Your task to perform on an android device: Empty the shopping cart on newegg.com. Search for "razer huntsman" on newegg.com, select the first entry, and add it to the cart. Image 0: 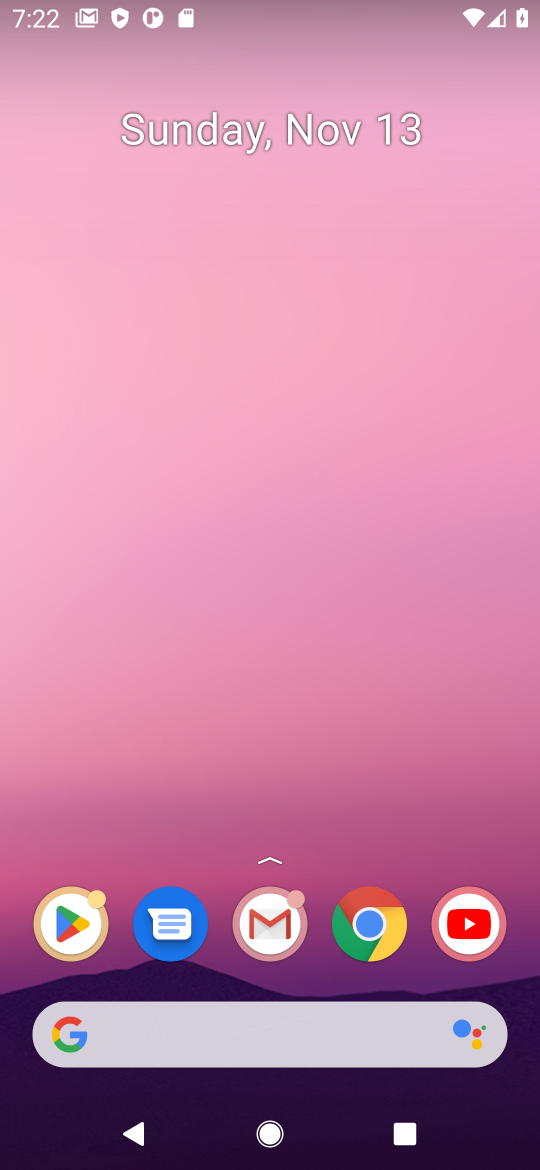
Step 0: click (363, 915)
Your task to perform on an android device: Empty the shopping cart on newegg.com. Search for "razer huntsman" on newegg.com, select the first entry, and add it to the cart. Image 1: 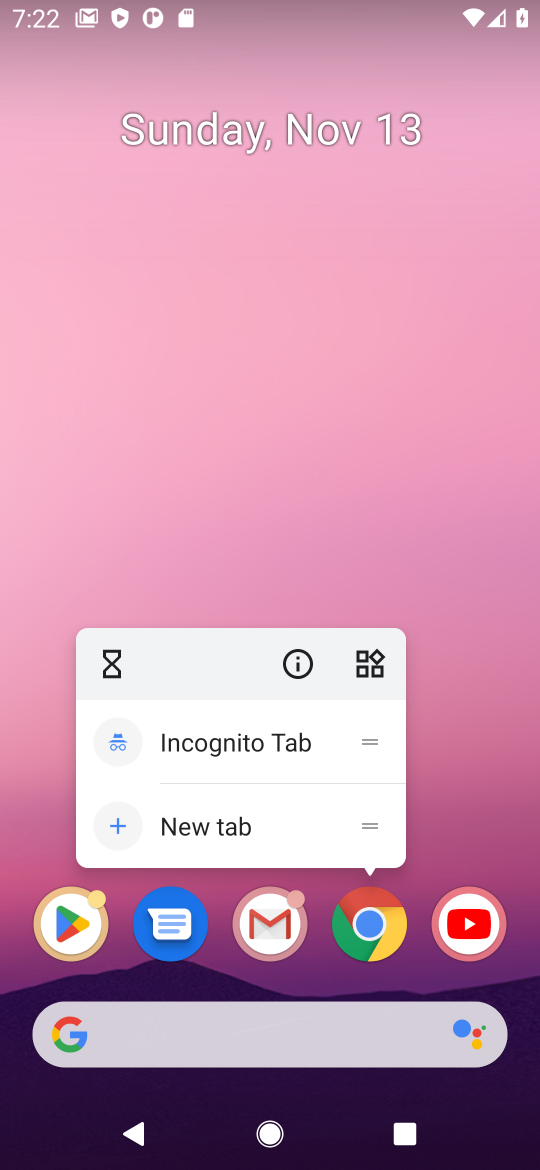
Step 1: click (363, 915)
Your task to perform on an android device: Empty the shopping cart on newegg.com. Search for "razer huntsman" on newegg.com, select the first entry, and add it to the cart. Image 2: 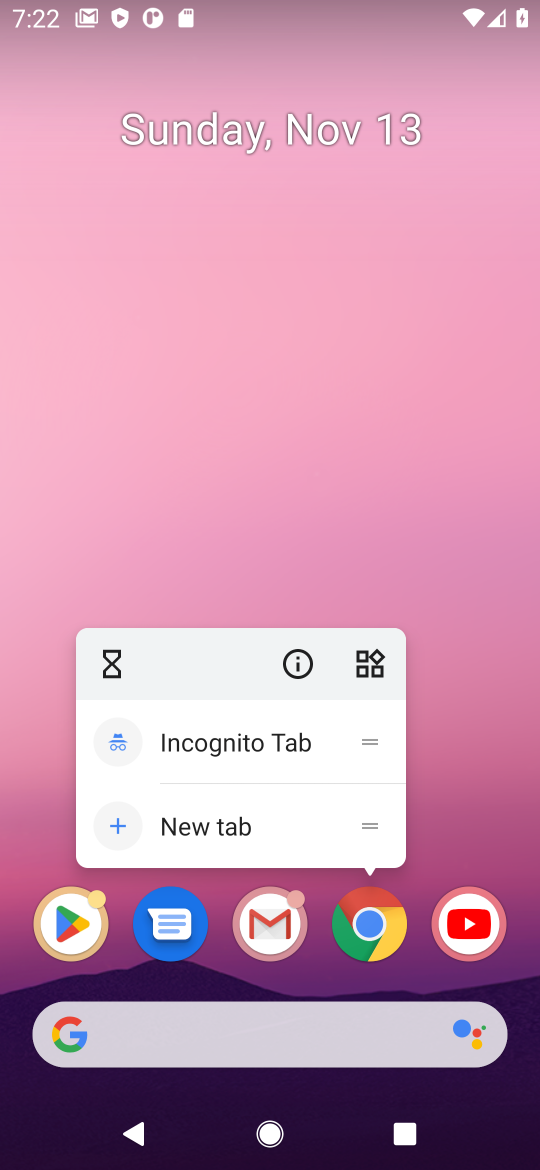
Step 2: click (376, 924)
Your task to perform on an android device: Empty the shopping cart on newegg.com. Search for "razer huntsman" on newegg.com, select the first entry, and add it to the cart. Image 3: 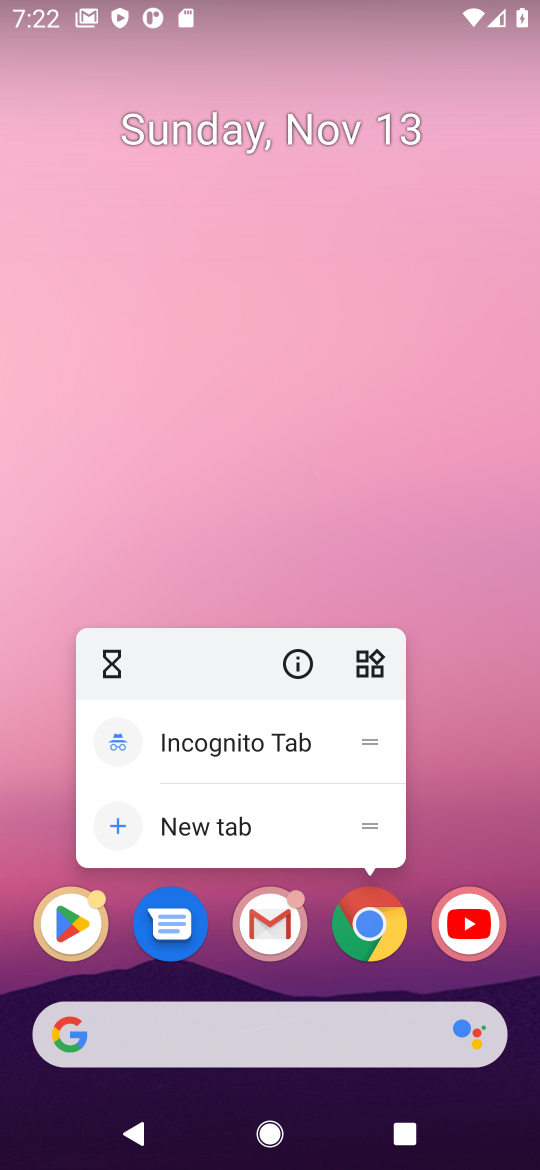
Step 3: click (376, 930)
Your task to perform on an android device: Empty the shopping cart on newegg.com. Search for "razer huntsman" on newegg.com, select the first entry, and add it to the cart. Image 4: 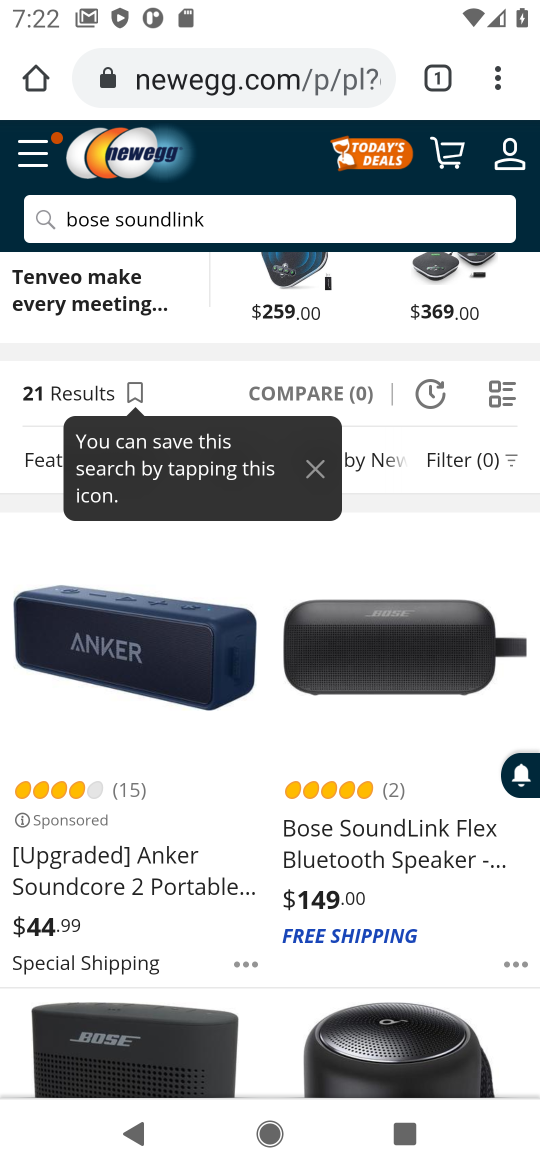
Step 4: click (258, 210)
Your task to perform on an android device: Empty the shopping cart on newegg.com. Search for "razer huntsman" on newegg.com, select the first entry, and add it to the cart. Image 5: 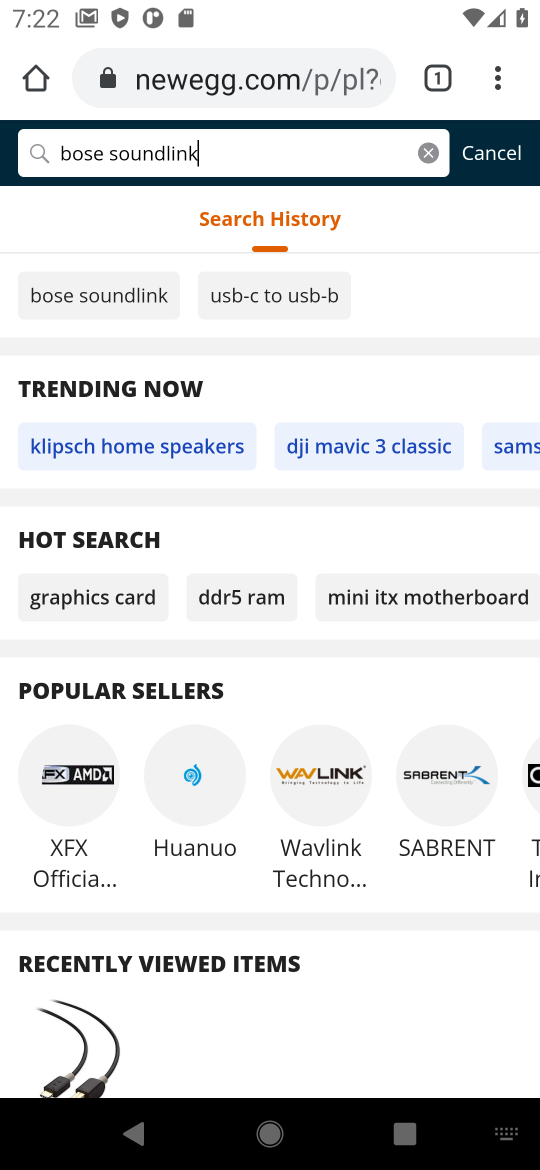
Step 5: click (424, 149)
Your task to perform on an android device: Empty the shopping cart on newegg.com. Search for "razer huntsman" on newegg.com, select the first entry, and add it to the cart. Image 6: 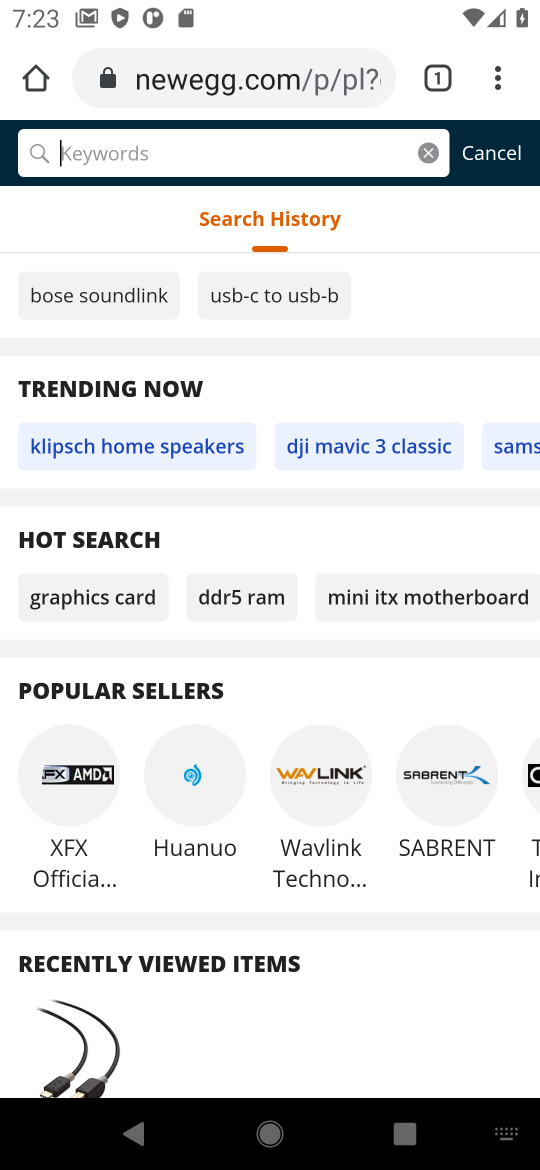
Step 6: type "razer huntsman"
Your task to perform on an android device: Empty the shopping cart on newegg.com. Search for "razer huntsman" on newegg.com, select the first entry, and add it to the cart. Image 7: 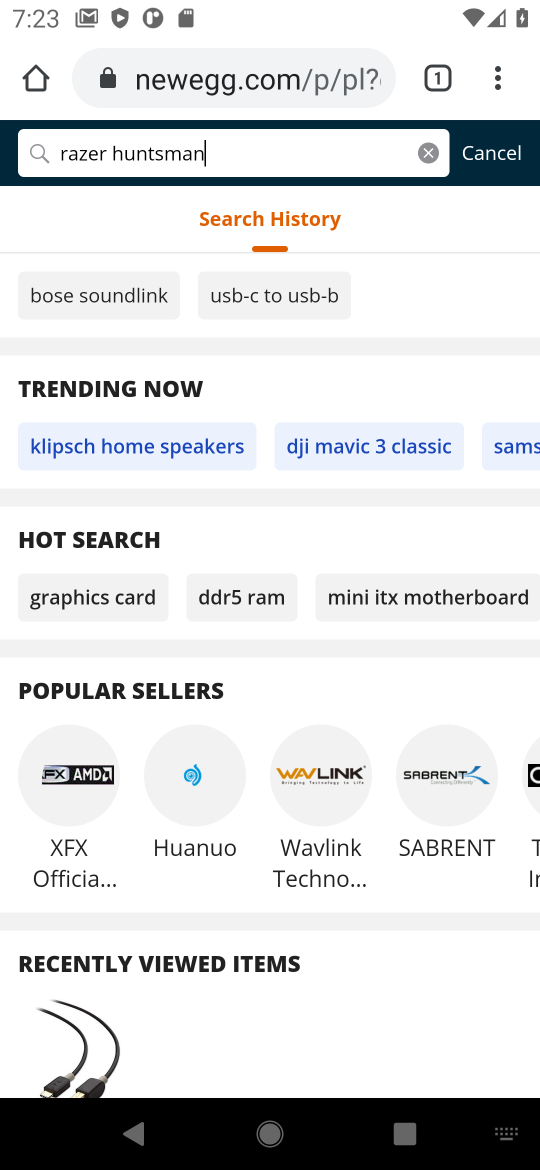
Step 7: press enter
Your task to perform on an android device: Empty the shopping cart on newegg.com. Search for "razer huntsman" on newegg.com, select the first entry, and add it to the cart. Image 8: 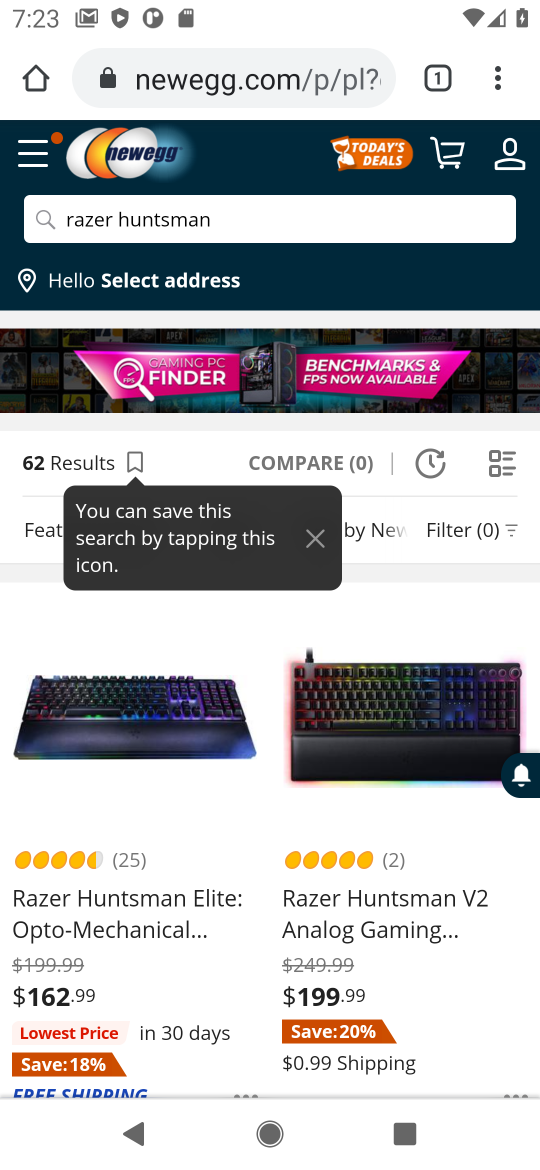
Step 8: click (57, 875)
Your task to perform on an android device: Empty the shopping cart on newegg.com. Search for "razer huntsman" on newegg.com, select the first entry, and add it to the cart. Image 9: 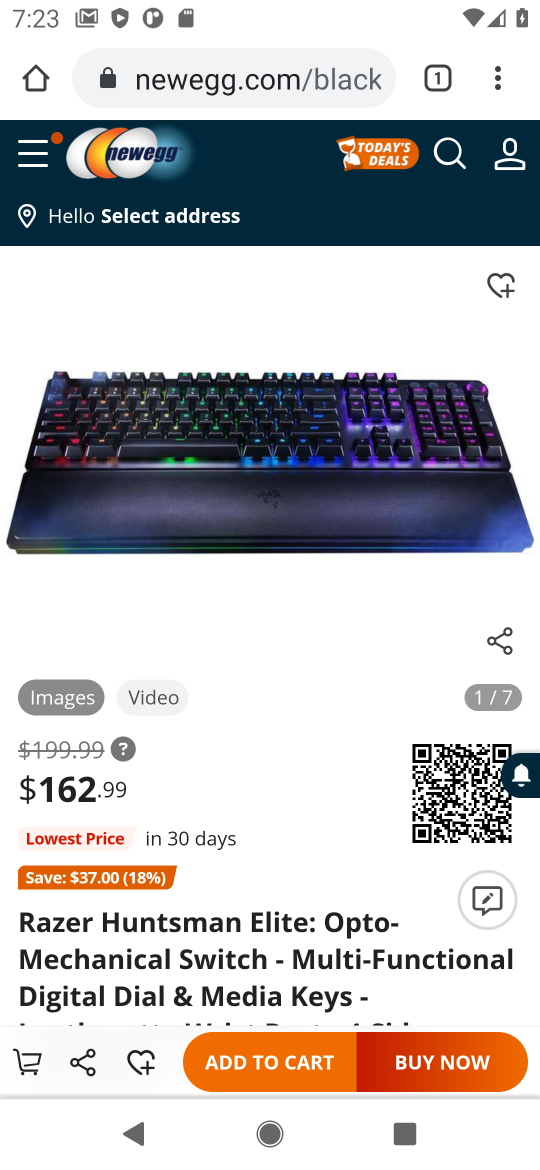
Step 9: click (278, 1056)
Your task to perform on an android device: Empty the shopping cart on newegg.com. Search for "razer huntsman" on newegg.com, select the first entry, and add it to the cart. Image 10: 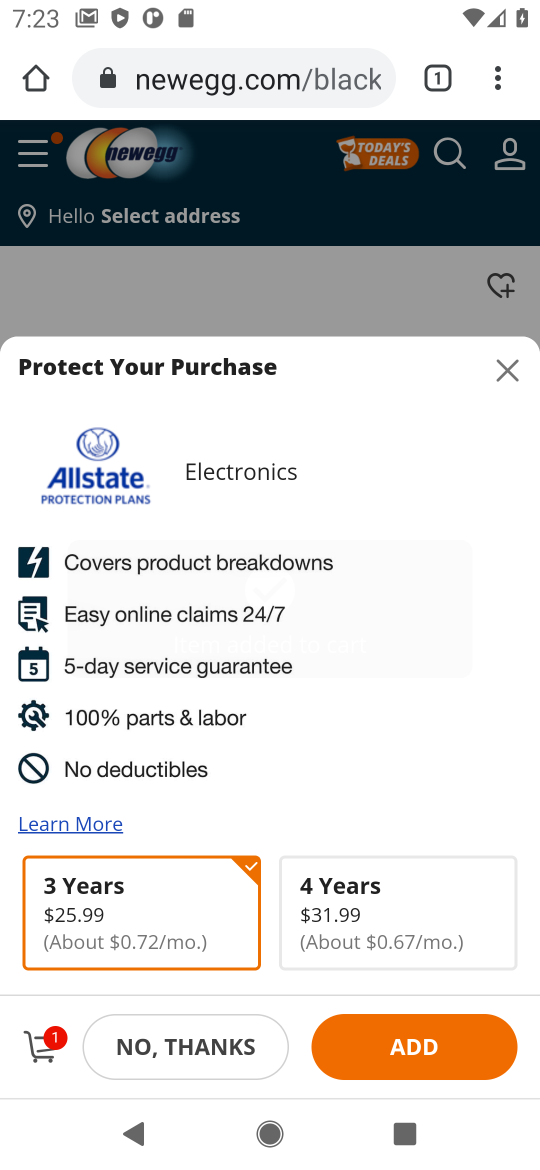
Step 10: click (47, 1048)
Your task to perform on an android device: Empty the shopping cart on newegg.com. Search for "razer huntsman" on newegg.com, select the first entry, and add it to the cart. Image 11: 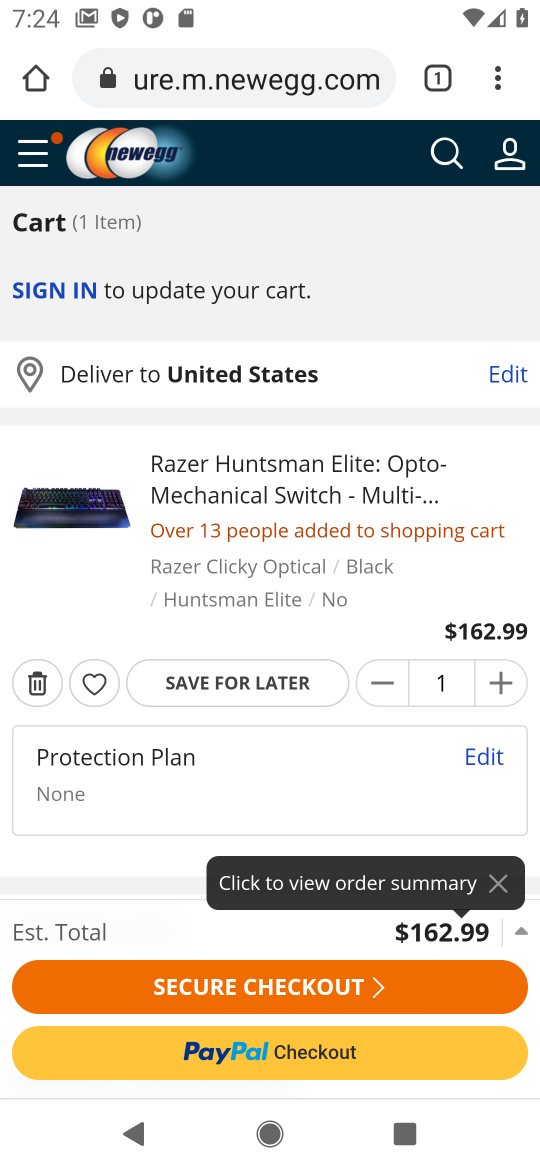
Step 11: task complete